Your task to perform on an android device: Open Google Chrome Image 0: 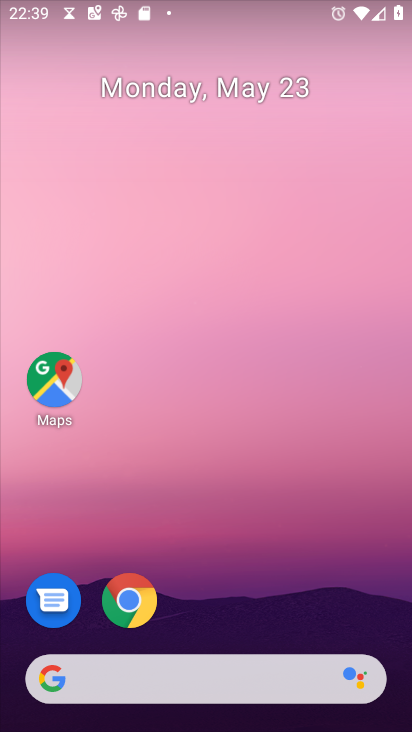
Step 0: click (126, 593)
Your task to perform on an android device: Open Google Chrome Image 1: 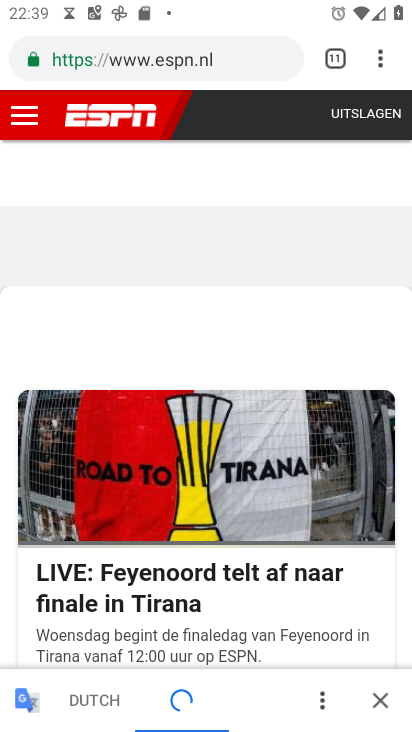
Step 1: task complete